Your task to perform on an android device: turn off data saver in the chrome app Image 0: 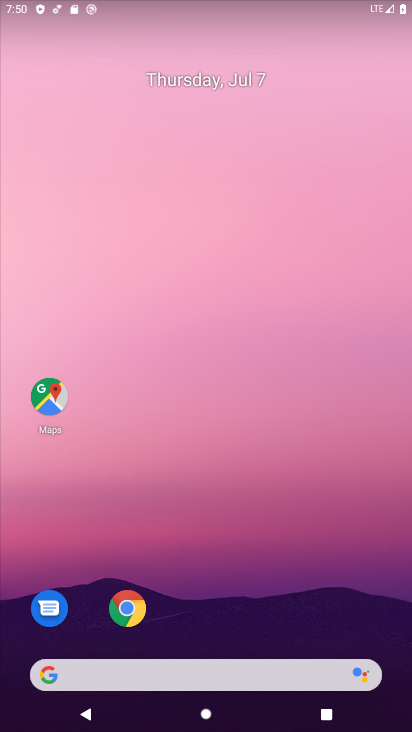
Step 0: click (128, 605)
Your task to perform on an android device: turn off data saver in the chrome app Image 1: 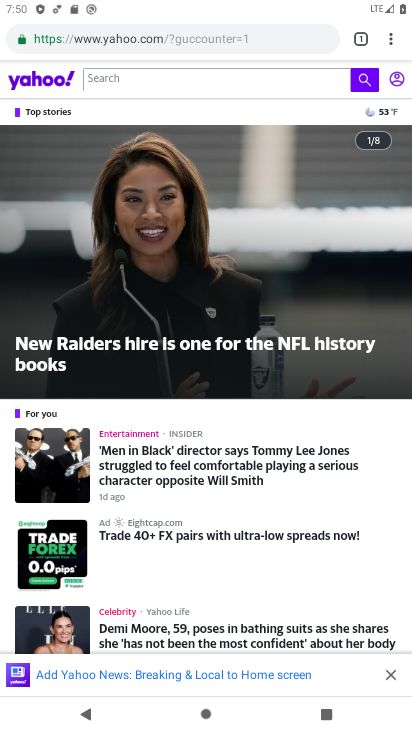
Step 1: click (391, 42)
Your task to perform on an android device: turn off data saver in the chrome app Image 2: 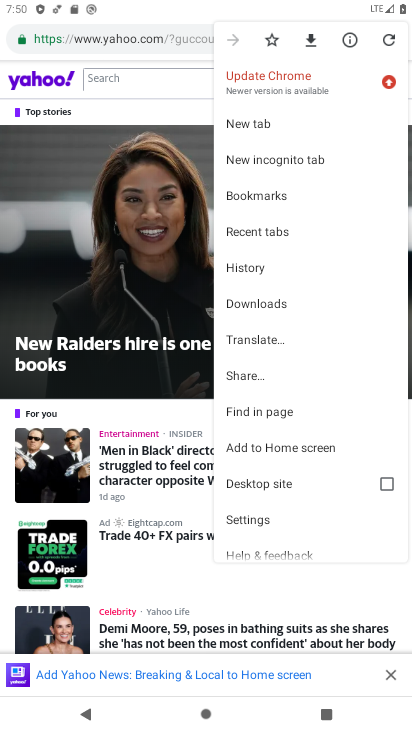
Step 2: click (252, 519)
Your task to perform on an android device: turn off data saver in the chrome app Image 3: 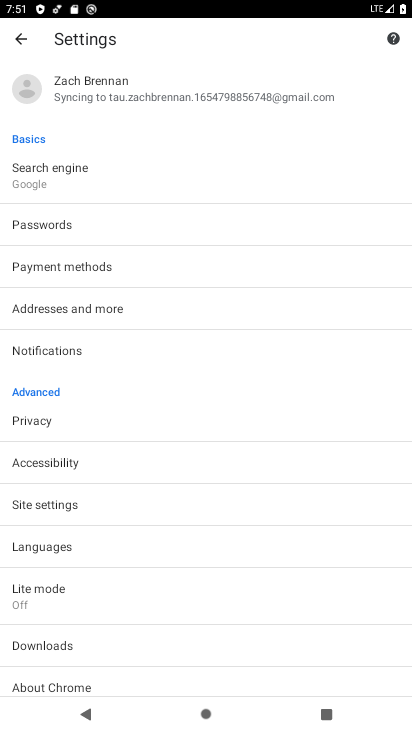
Step 3: click (56, 595)
Your task to perform on an android device: turn off data saver in the chrome app Image 4: 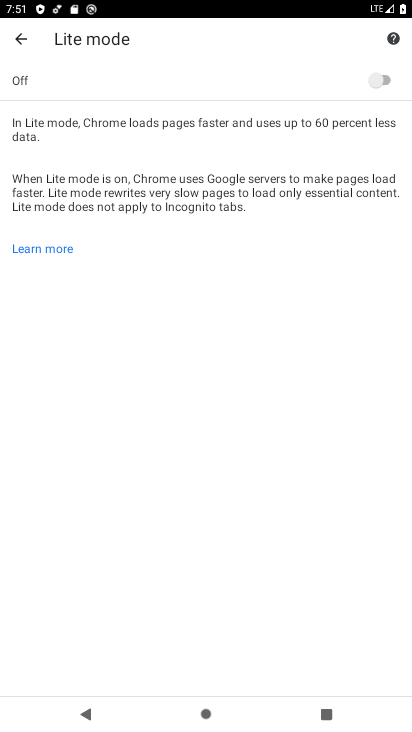
Step 4: task complete